Your task to perform on an android device: Turn on the flashlight Image 0: 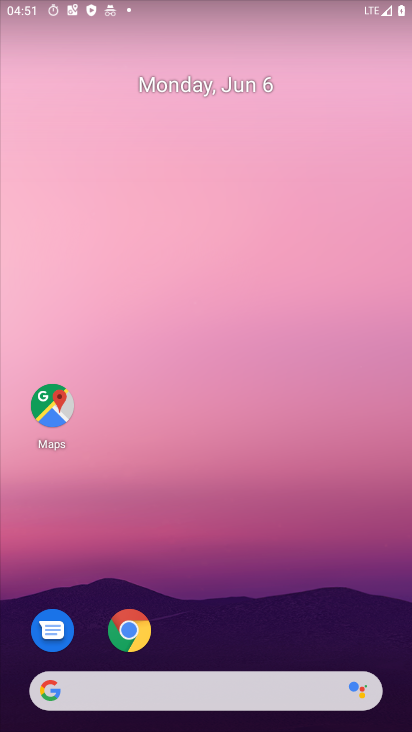
Step 0: drag from (291, 8) to (338, 396)
Your task to perform on an android device: Turn on the flashlight Image 1: 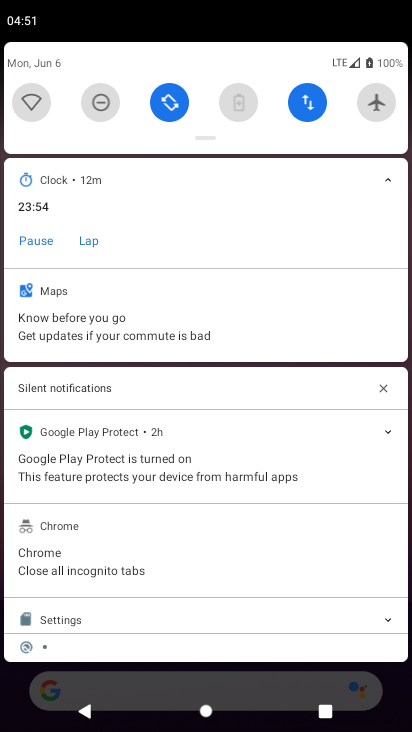
Step 1: task complete